Your task to perform on an android device: turn on the 12-hour format for clock Image 0: 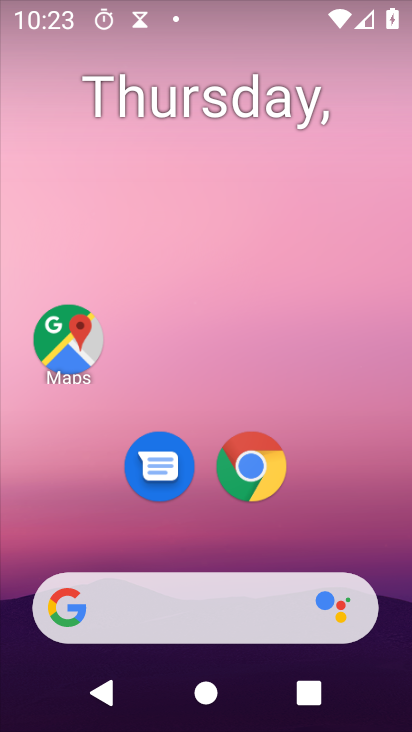
Step 0: drag from (183, 612) to (339, 153)
Your task to perform on an android device: turn on the 12-hour format for clock Image 1: 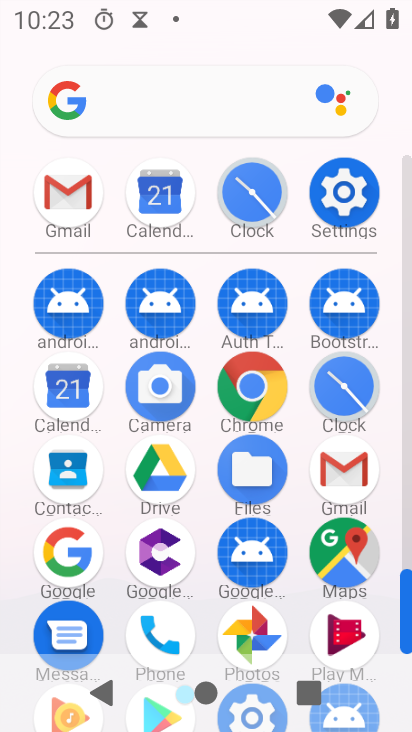
Step 1: click (351, 400)
Your task to perform on an android device: turn on the 12-hour format for clock Image 2: 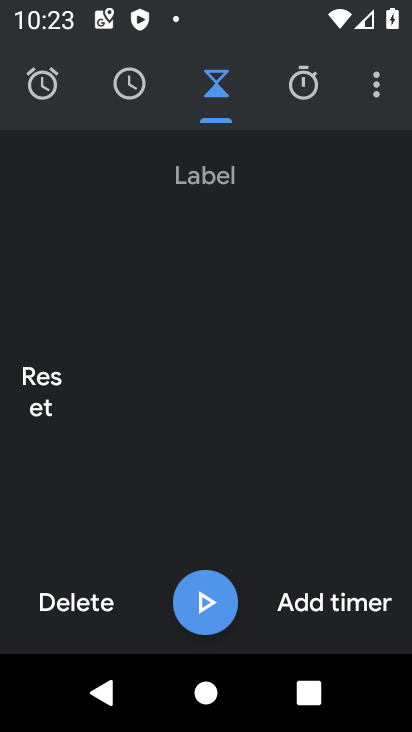
Step 2: click (378, 90)
Your task to perform on an android device: turn on the 12-hour format for clock Image 3: 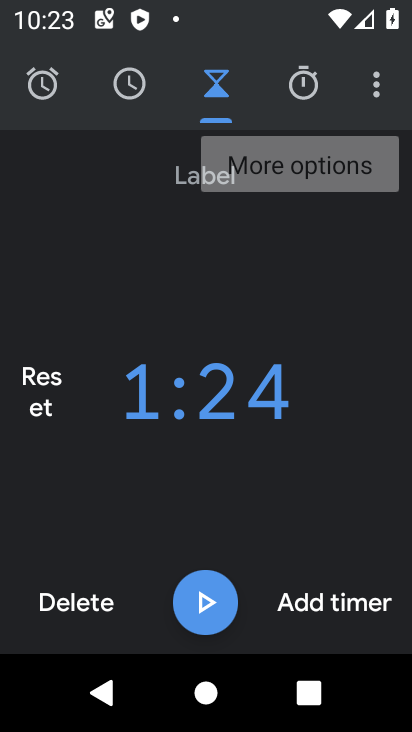
Step 3: click (379, 99)
Your task to perform on an android device: turn on the 12-hour format for clock Image 4: 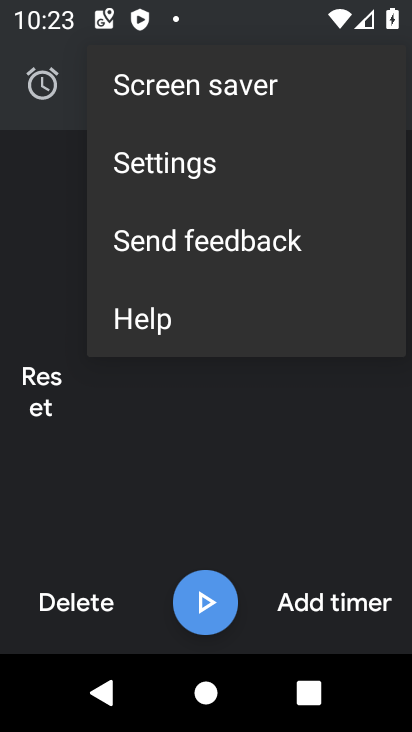
Step 4: click (211, 164)
Your task to perform on an android device: turn on the 12-hour format for clock Image 5: 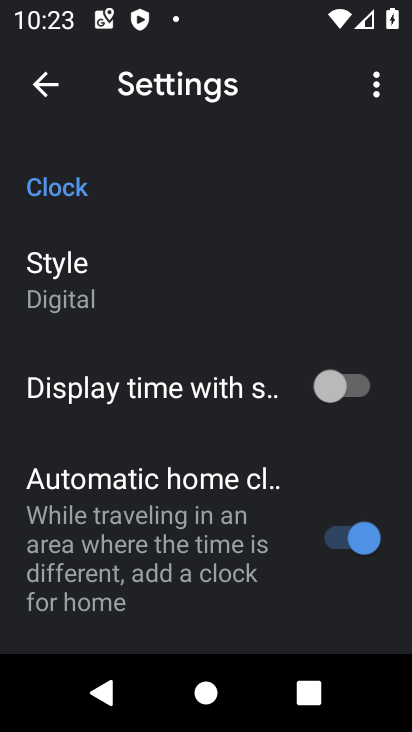
Step 5: drag from (202, 609) to (339, 227)
Your task to perform on an android device: turn on the 12-hour format for clock Image 6: 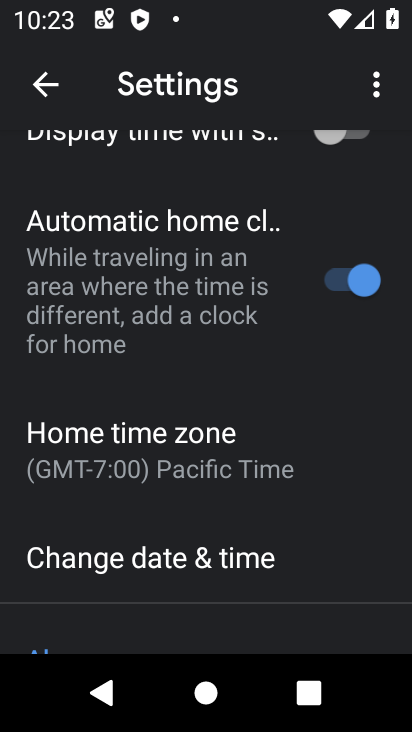
Step 6: click (156, 564)
Your task to perform on an android device: turn on the 12-hour format for clock Image 7: 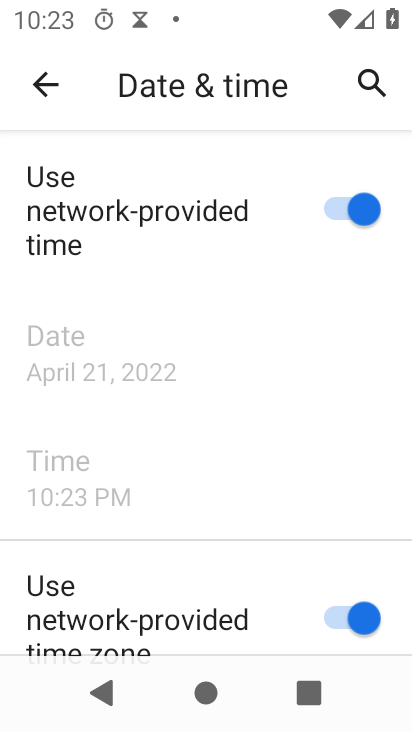
Step 7: task complete